Your task to perform on an android device: Open Amazon Image 0: 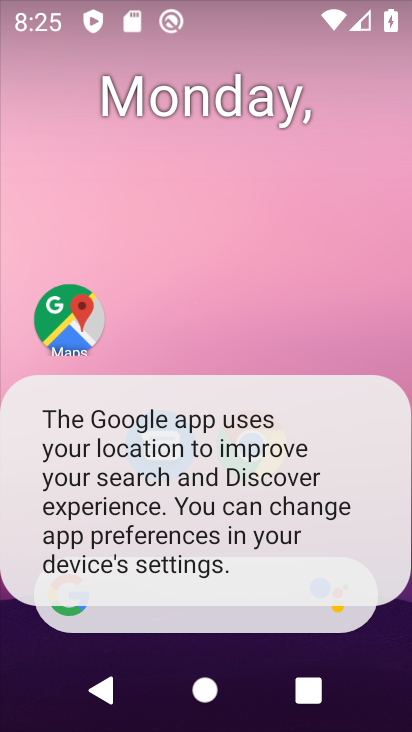
Step 0: click (264, 458)
Your task to perform on an android device: Open Amazon Image 1: 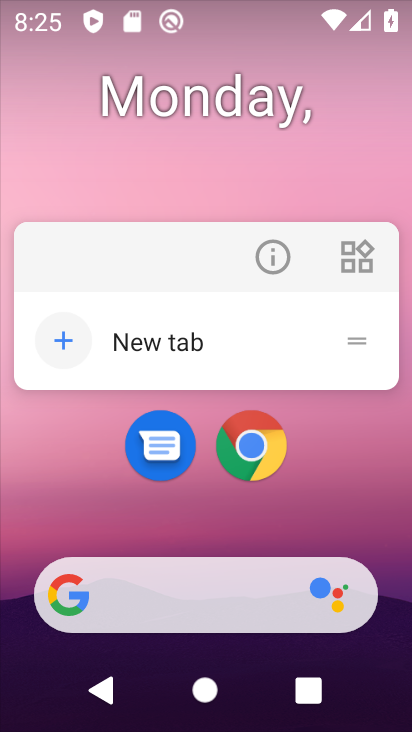
Step 1: click (261, 457)
Your task to perform on an android device: Open Amazon Image 2: 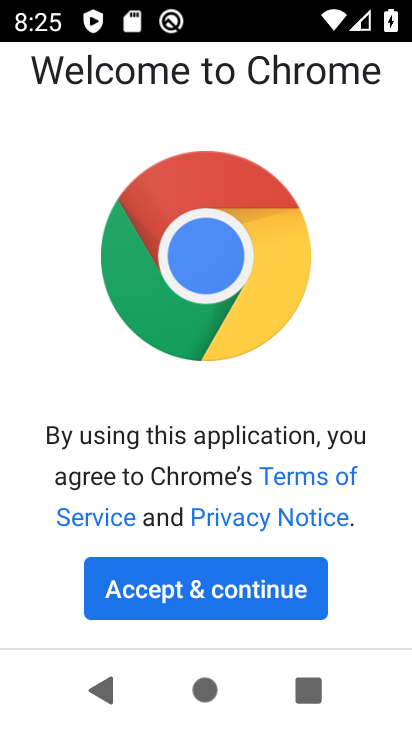
Step 2: click (233, 578)
Your task to perform on an android device: Open Amazon Image 3: 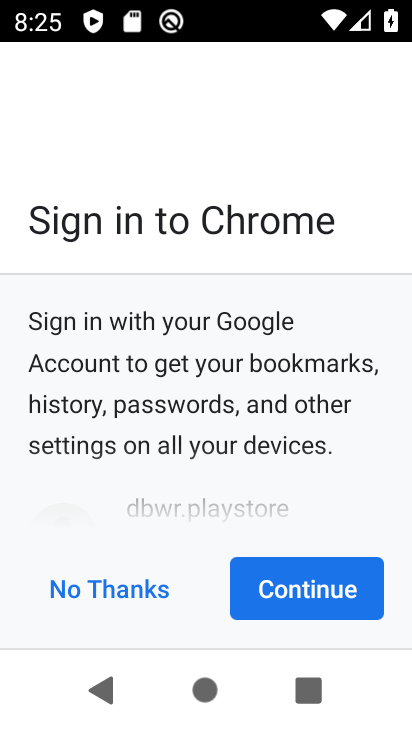
Step 3: click (259, 596)
Your task to perform on an android device: Open Amazon Image 4: 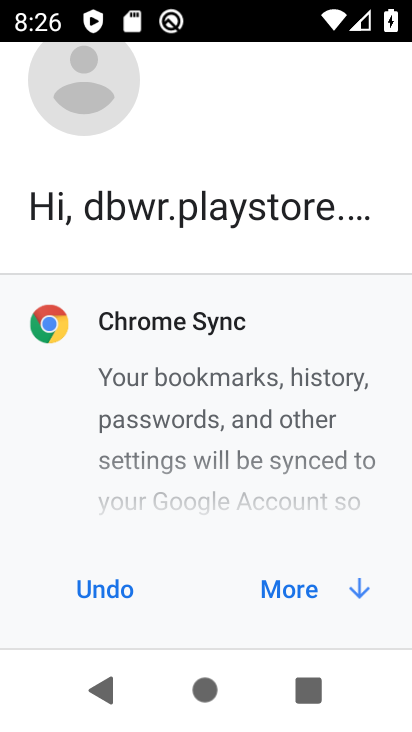
Step 4: click (259, 596)
Your task to perform on an android device: Open Amazon Image 5: 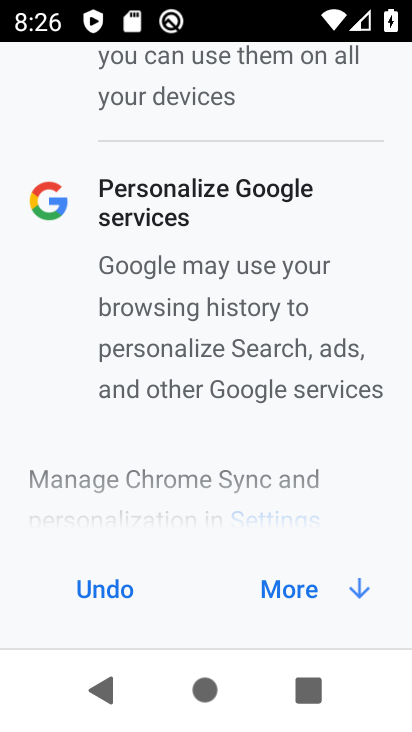
Step 5: click (270, 603)
Your task to perform on an android device: Open Amazon Image 6: 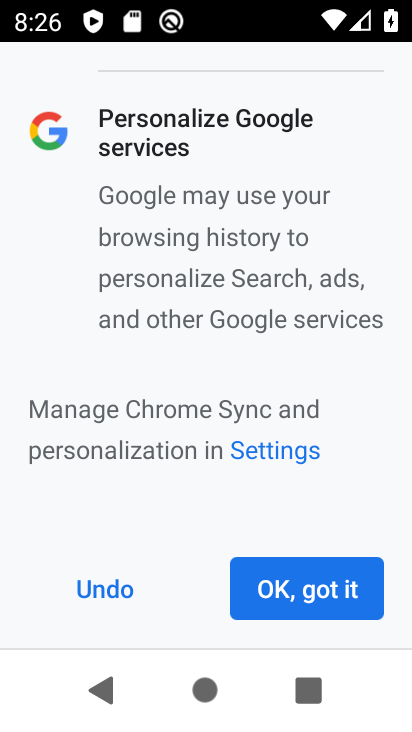
Step 6: click (279, 600)
Your task to perform on an android device: Open Amazon Image 7: 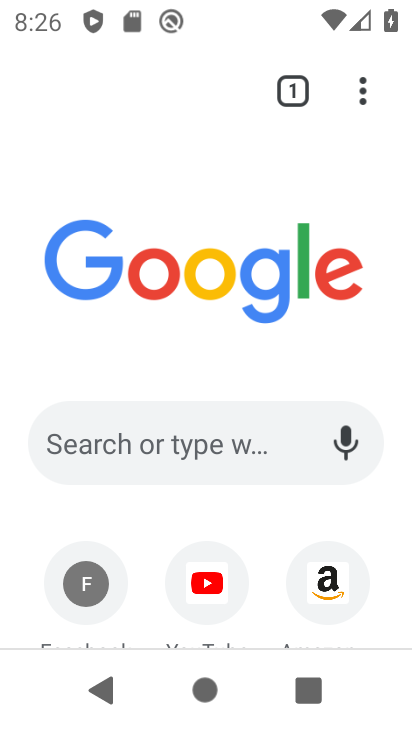
Step 7: click (332, 593)
Your task to perform on an android device: Open Amazon Image 8: 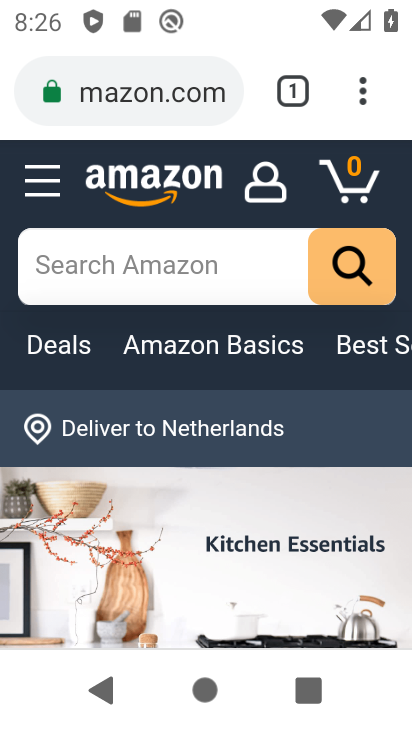
Step 8: task complete